Your task to perform on an android device: check the backup settings in the google photos Image 0: 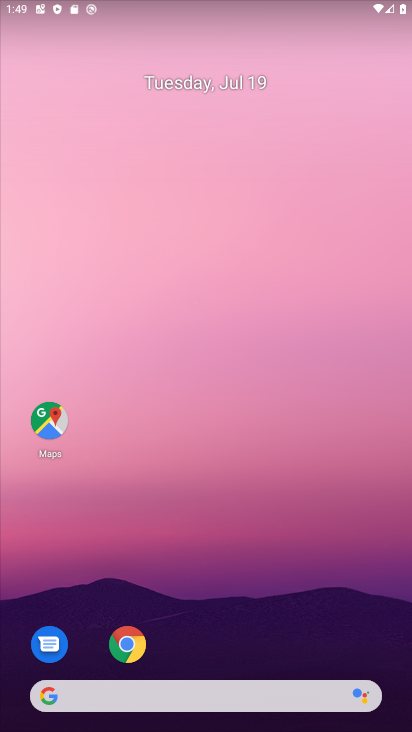
Step 0: drag from (200, 585) to (184, 107)
Your task to perform on an android device: check the backup settings in the google photos Image 1: 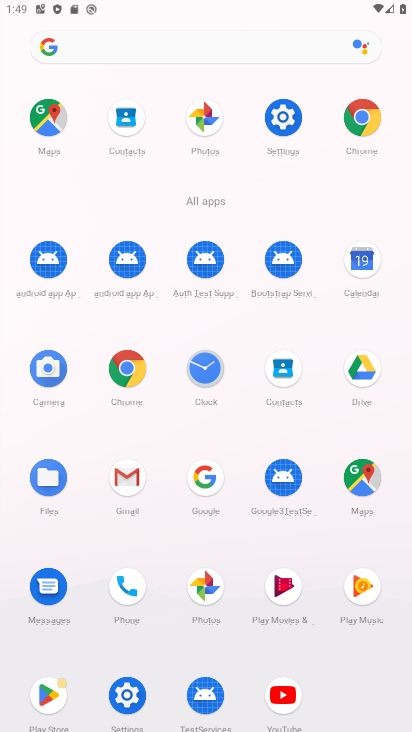
Step 1: click (212, 586)
Your task to perform on an android device: check the backup settings in the google photos Image 2: 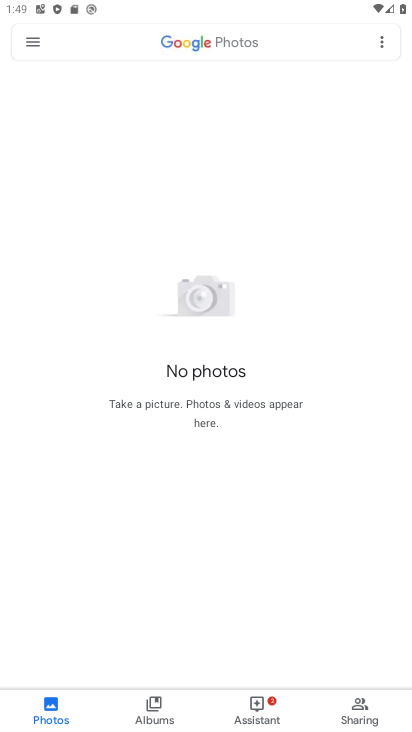
Step 2: click (33, 35)
Your task to perform on an android device: check the backup settings in the google photos Image 3: 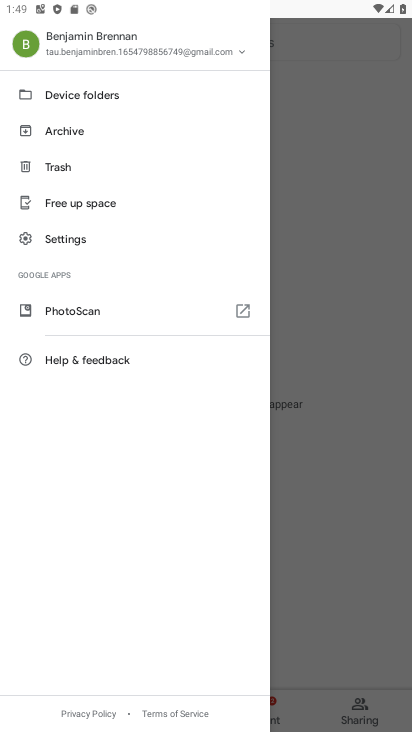
Step 3: click (99, 101)
Your task to perform on an android device: check the backup settings in the google photos Image 4: 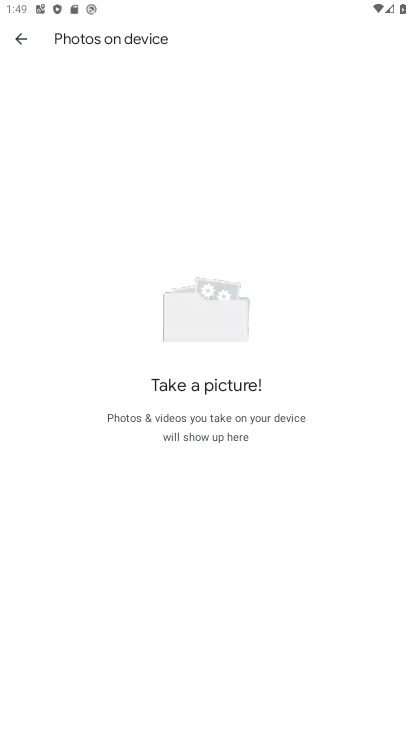
Step 4: click (9, 37)
Your task to perform on an android device: check the backup settings in the google photos Image 5: 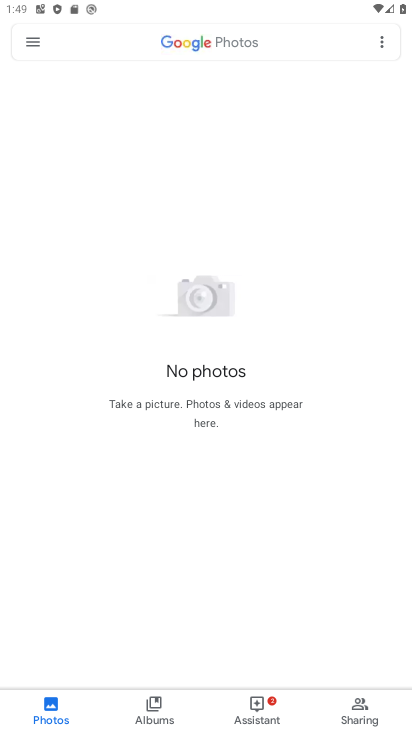
Step 5: click (35, 39)
Your task to perform on an android device: check the backup settings in the google photos Image 6: 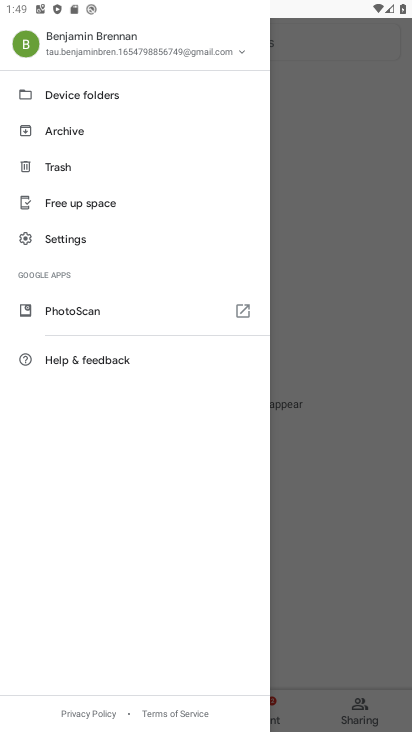
Step 6: click (71, 243)
Your task to perform on an android device: check the backup settings in the google photos Image 7: 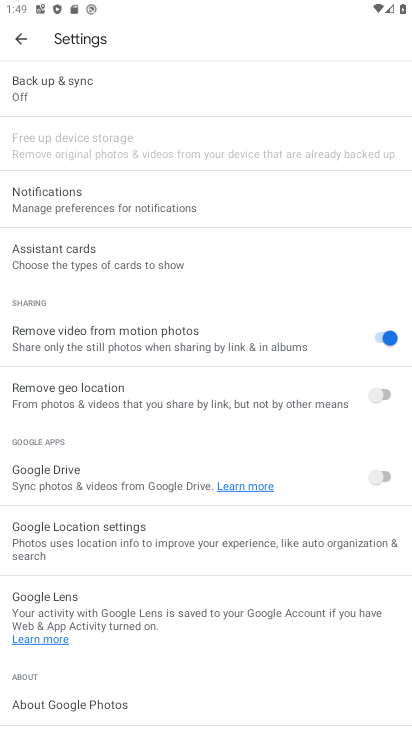
Step 7: click (70, 98)
Your task to perform on an android device: check the backup settings in the google photos Image 8: 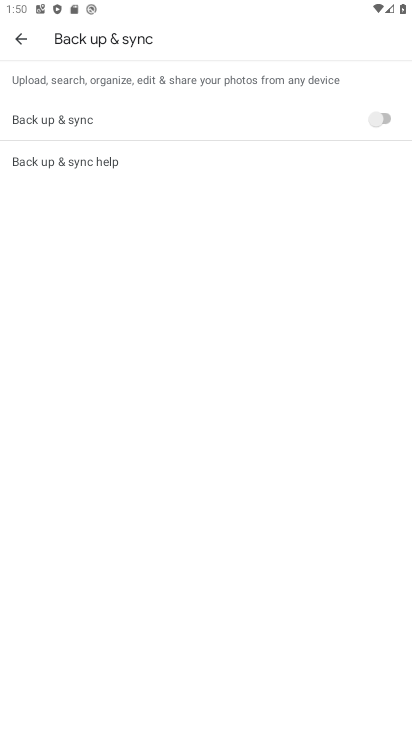
Step 8: task complete